Your task to perform on an android device: open wifi settings Image 0: 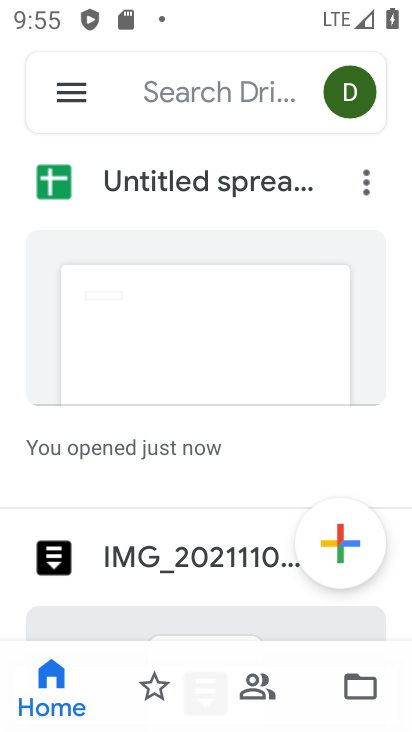
Step 0: drag from (145, 621) to (191, 305)
Your task to perform on an android device: open wifi settings Image 1: 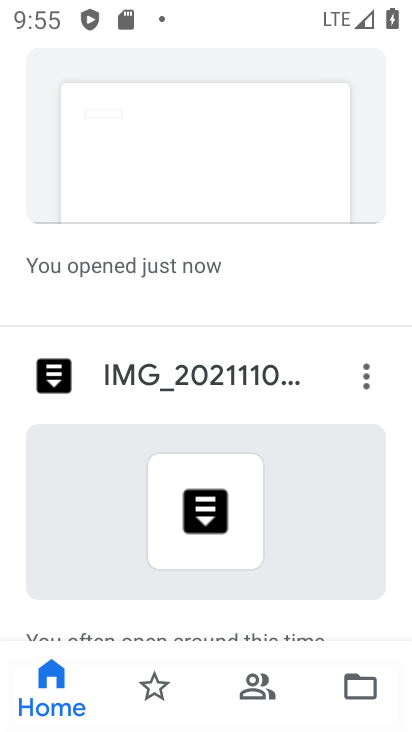
Step 1: press home button
Your task to perform on an android device: open wifi settings Image 2: 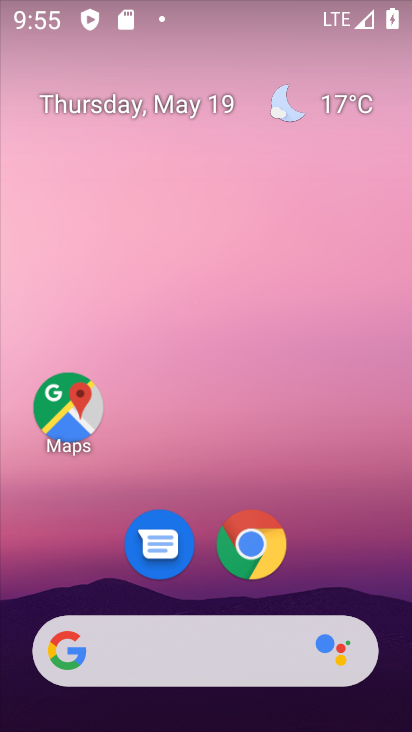
Step 2: drag from (194, 697) to (242, 86)
Your task to perform on an android device: open wifi settings Image 3: 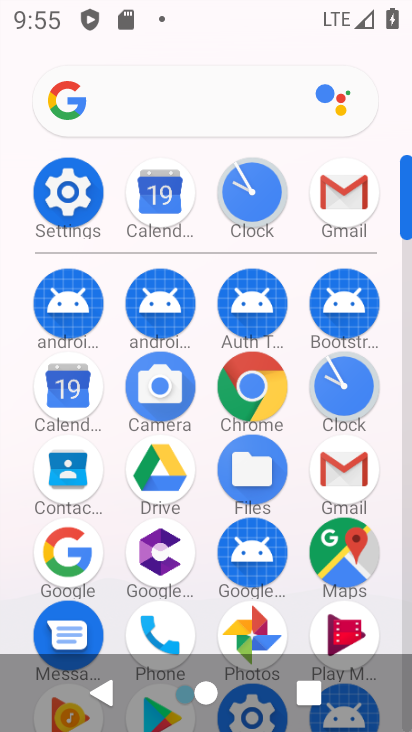
Step 3: click (54, 185)
Your task to perform on an android device: open wifi settings Image 4: 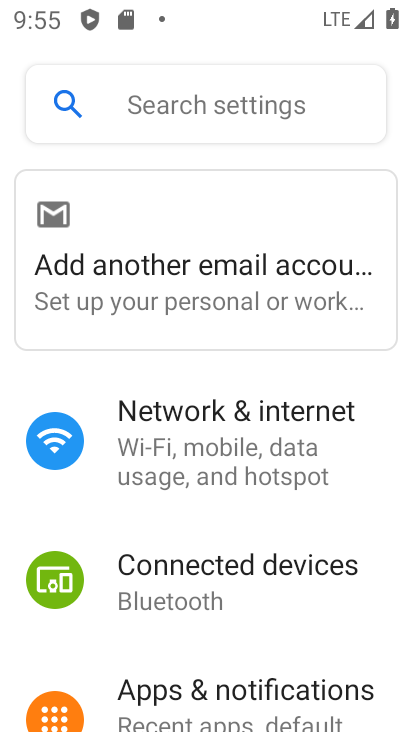
Step 4: click (243, 448)
Your task to perform on an android device: open wifi settings Image 5: 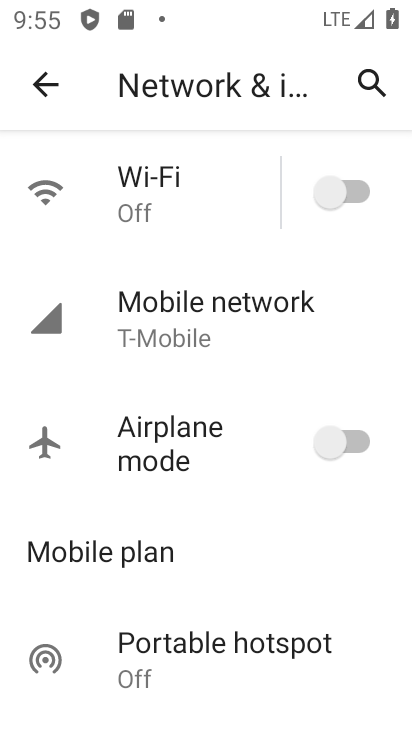
Step 5: click (153, 190)
Your task to perform on an android device: open wifi settings Image 6: 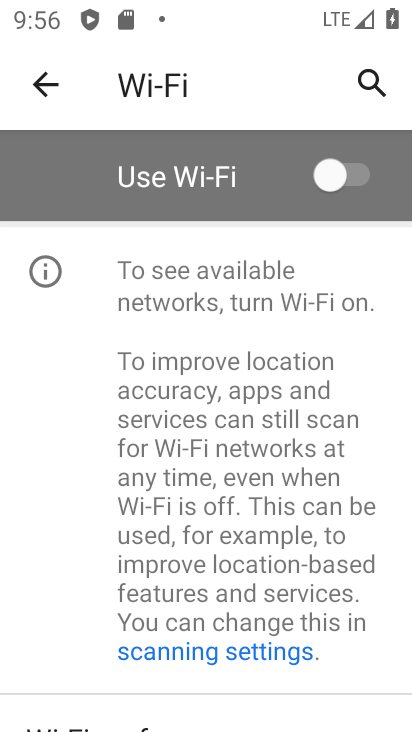
Step 6: task complete